Your task to perform on an android device: install app "Adobe Acrobat Reader" Image 0: 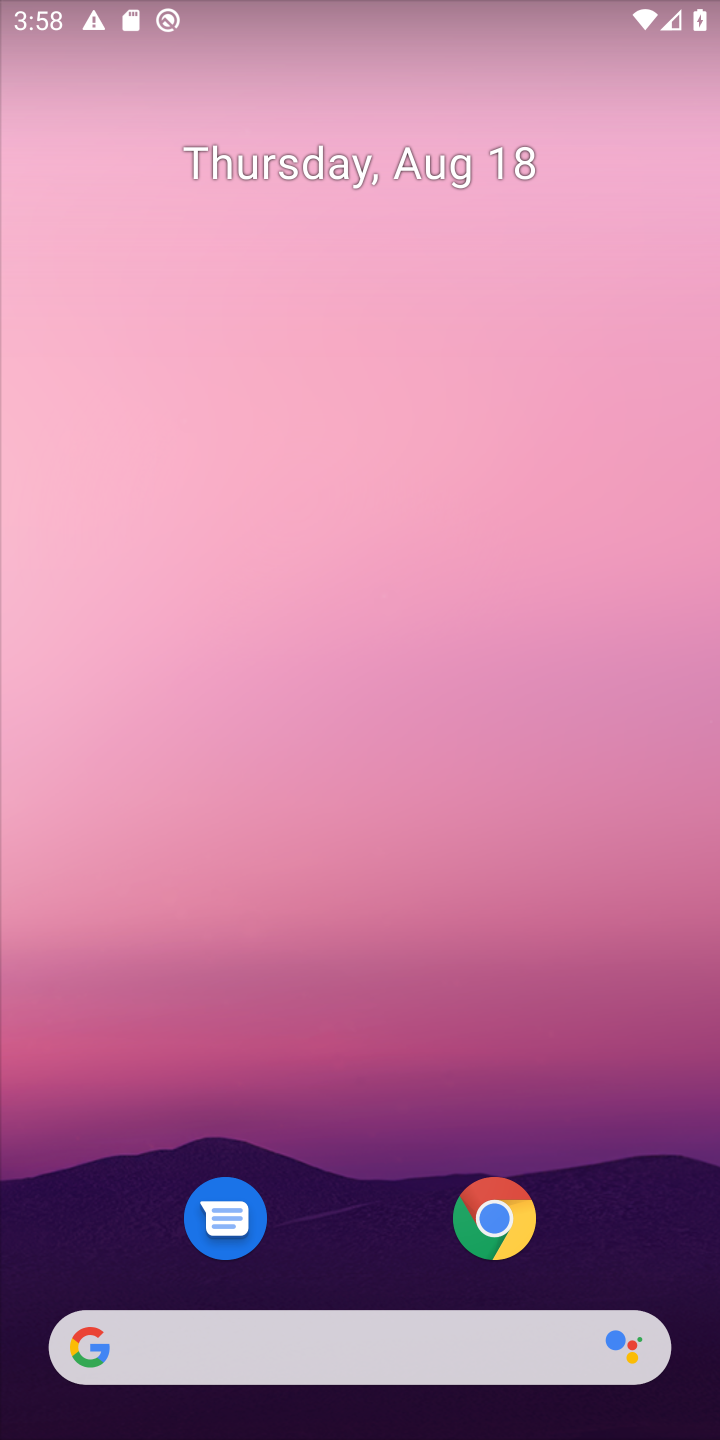
Step 0: drag from (370, 1165) to (321, 188)
Your task to perform on an android device: install app "Adobe Acrobat Reader" Image 1: 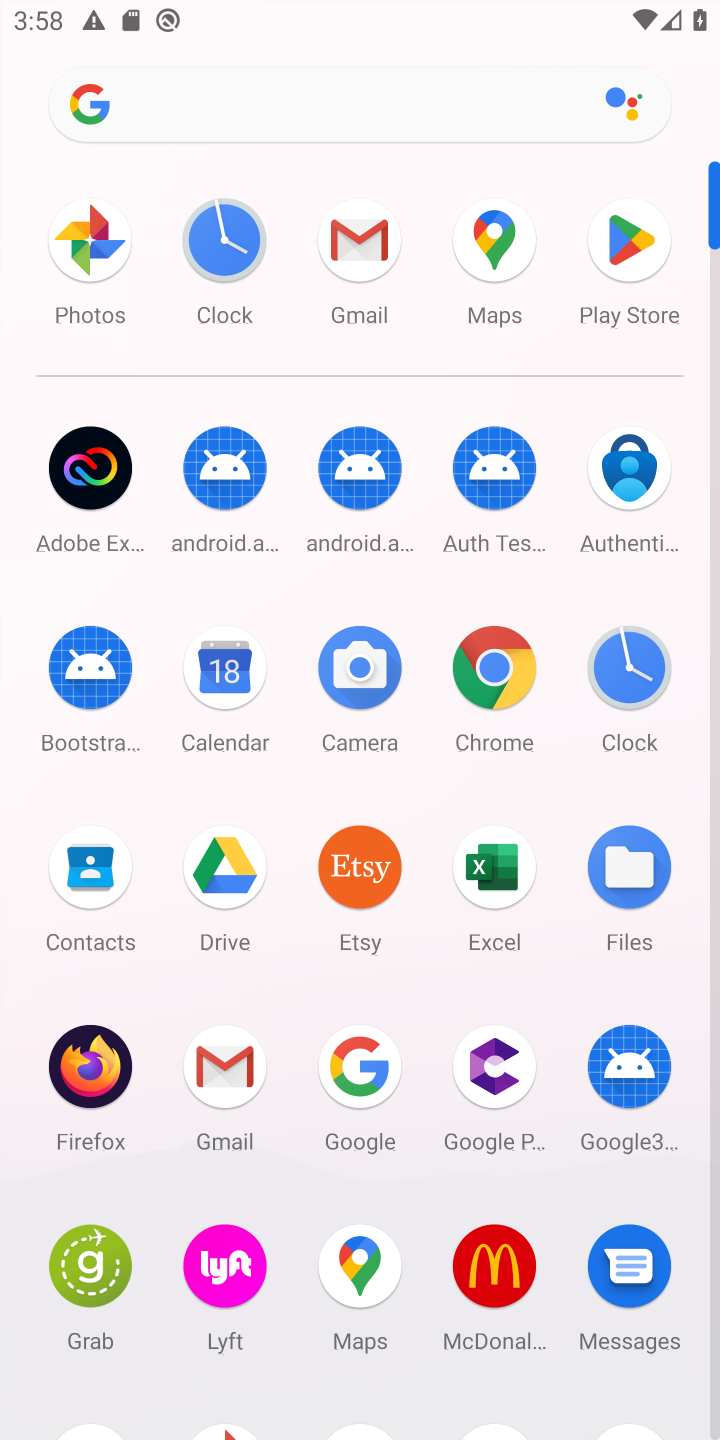
Step 1: click (633, 218)
Your task to perform on an android device: install app "Adobe Acrobat Reader" Image 2: 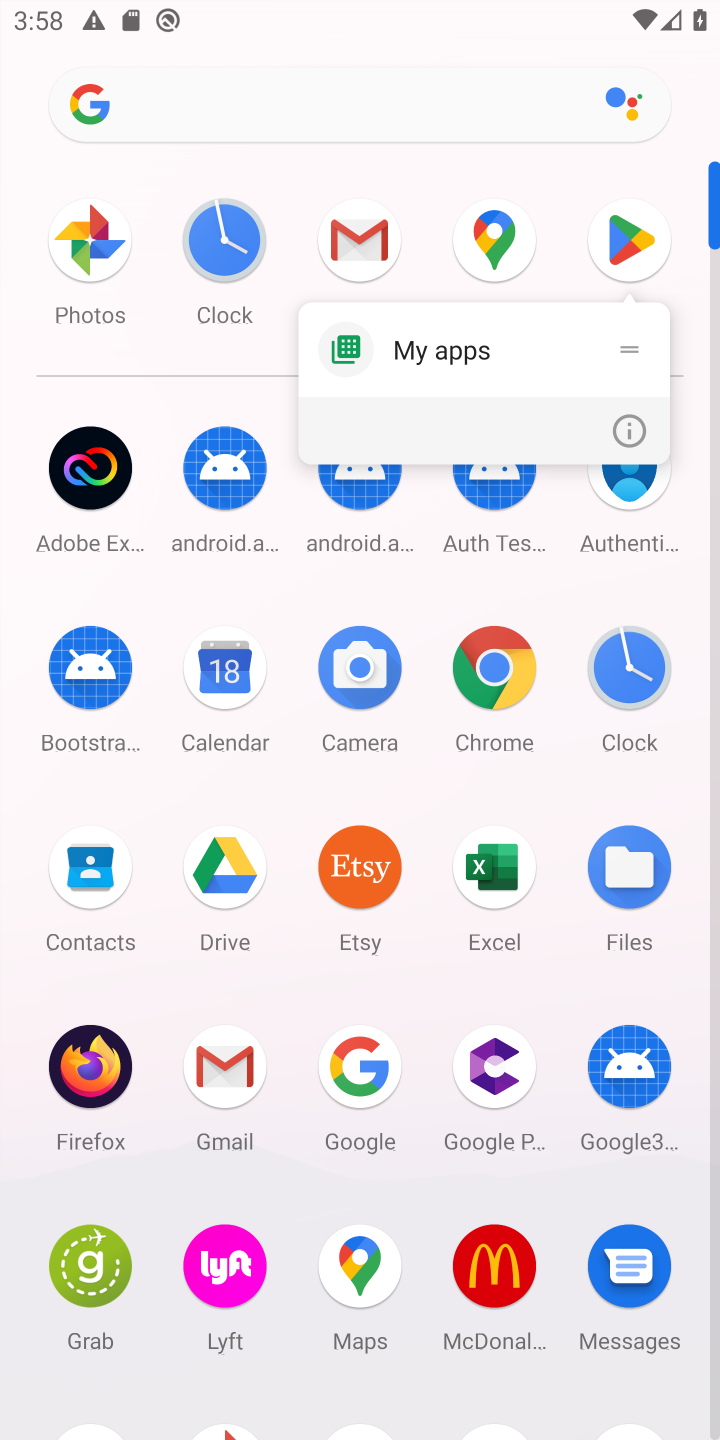
Step 2: click (625, 232)
Your task to perform on an android device: install app "Adobe Acrobat Reader" Image 3: 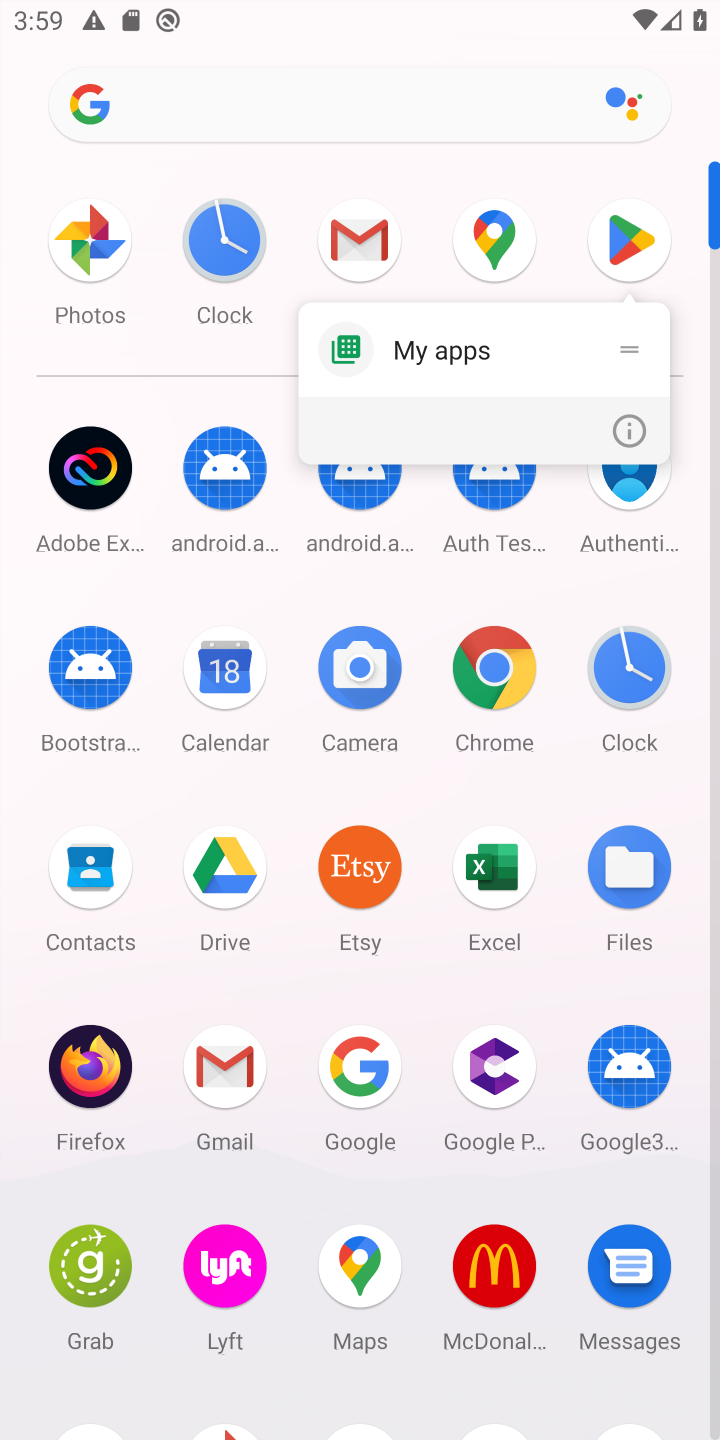
Step 3: click (627, 229)
Your task to perform on an android device: install app "Adobe Acrobat Reader" Image 4: 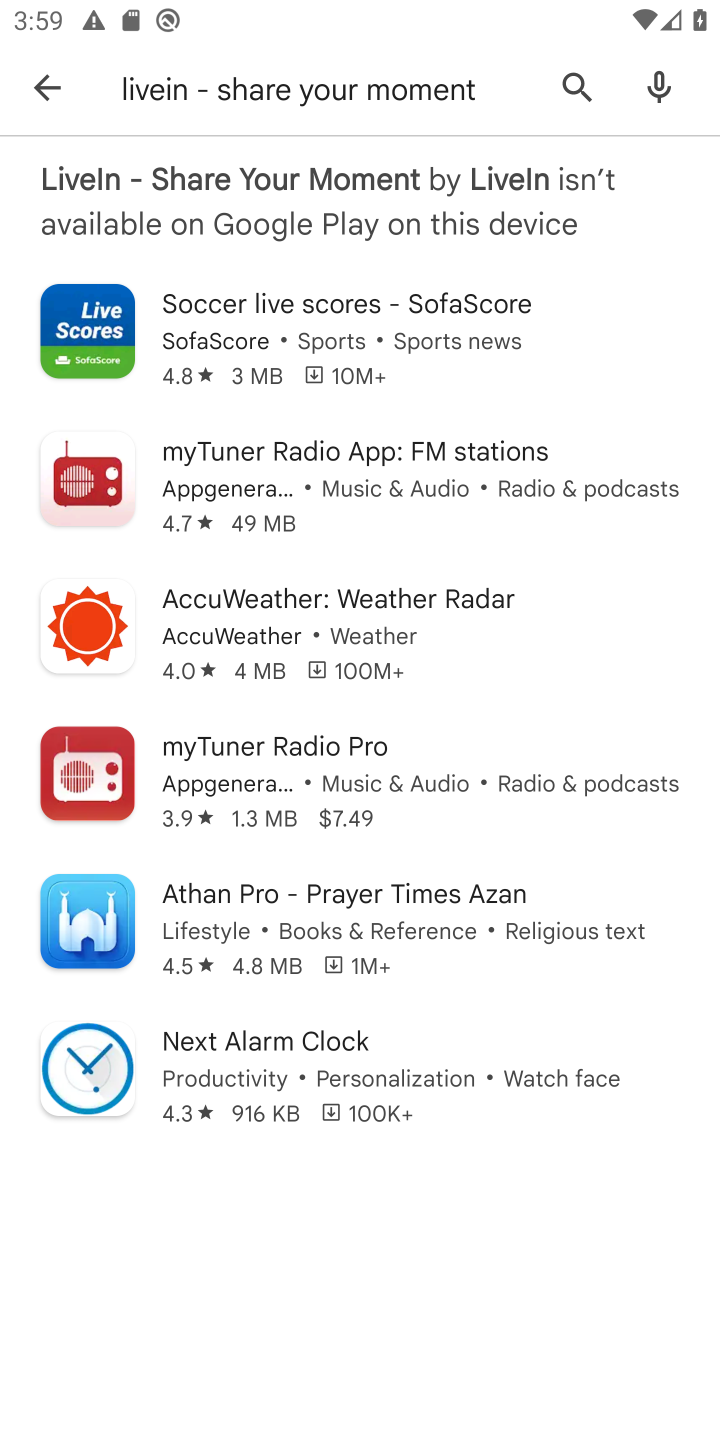
Step 4: click (566, 84)
Your task to perform on an android device: install app "Adobe Acrobat Reader" Image 5: 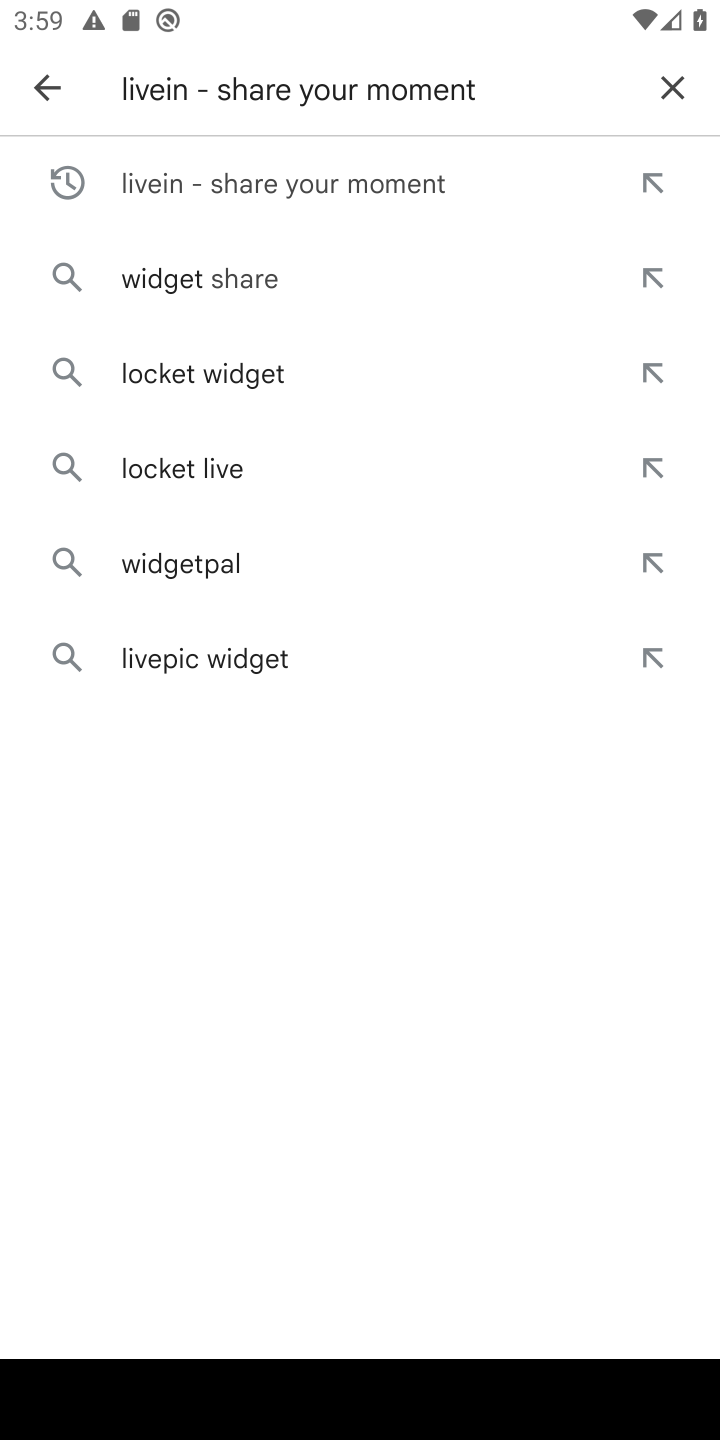
Step 5: click (666, 91)
Your task to perform on an android device: install app "Adobe Acrobat Reader" Image 6: 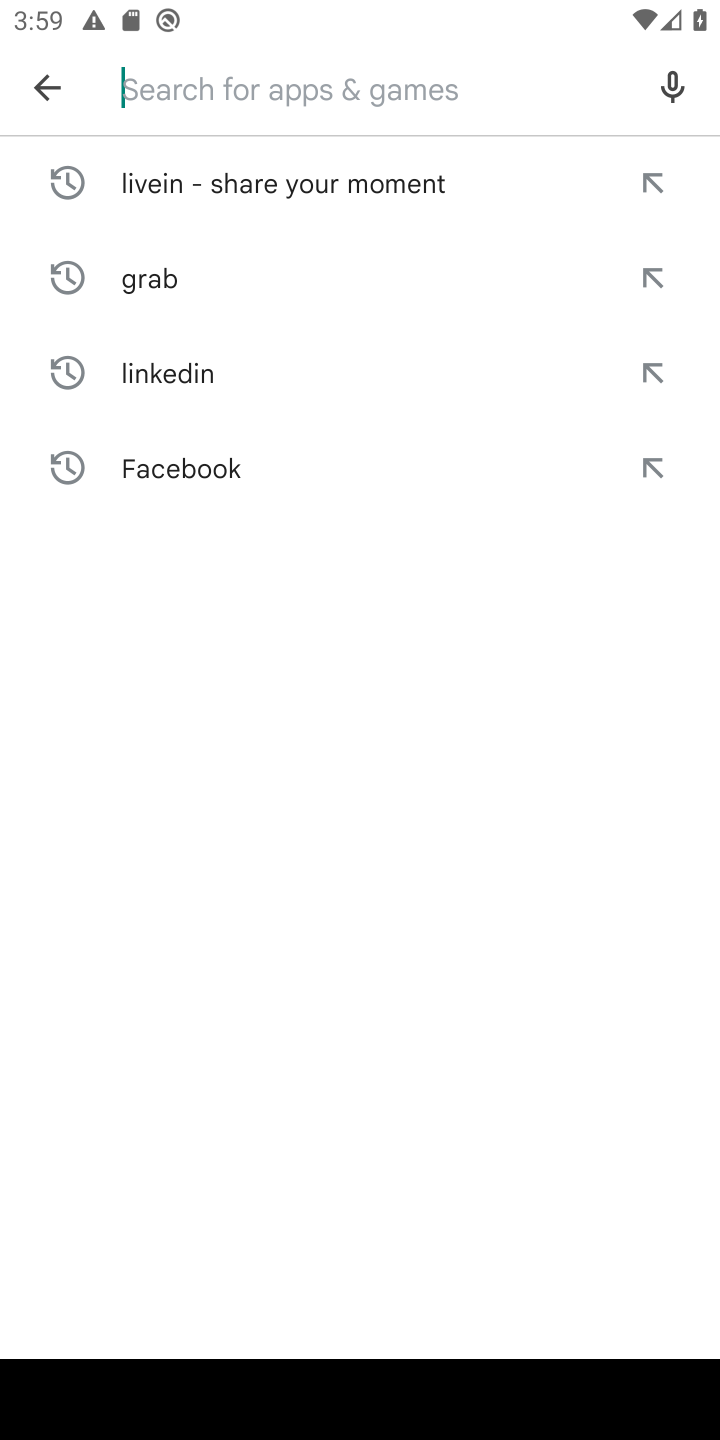
Step 6: type "Adobe Acrobat Reader"
Your task to perform on an android device: install app "Adobe Acrobat Reader" Image 7: 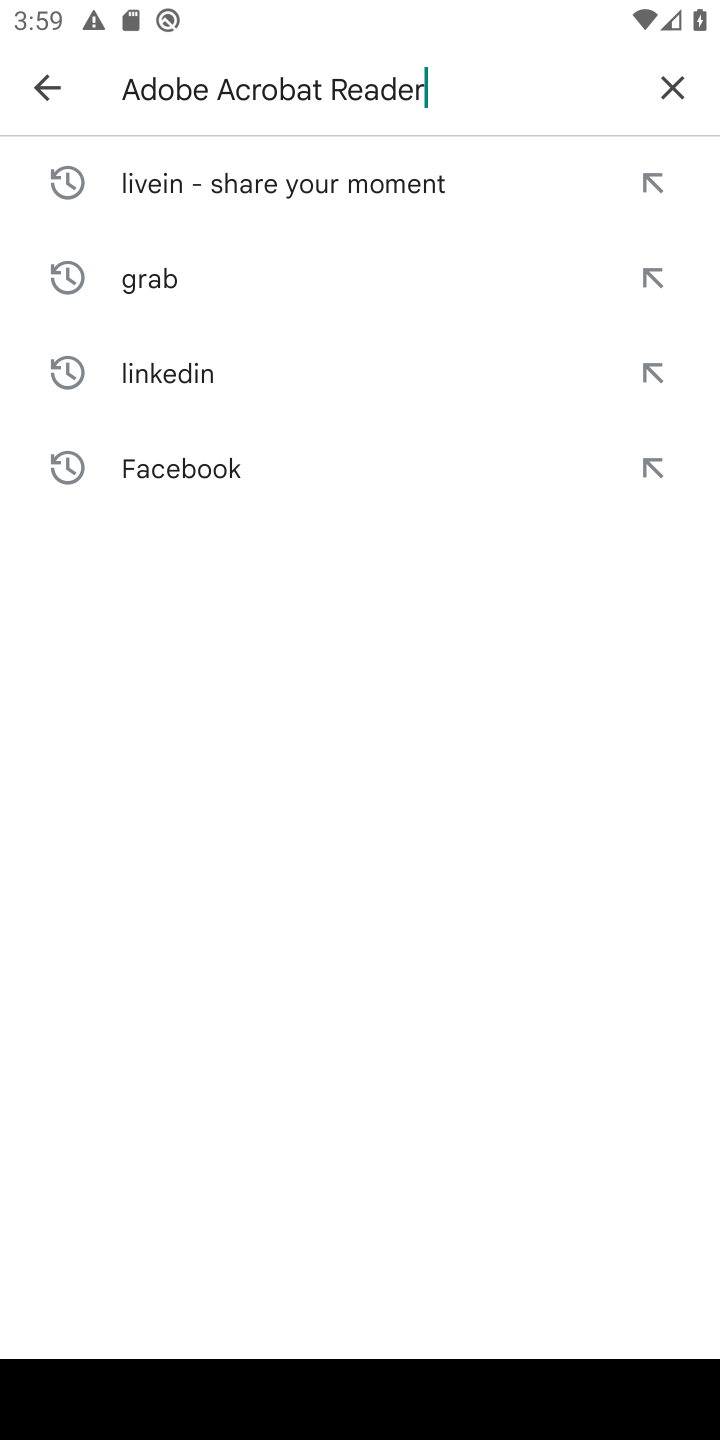
Step 7: type ""
Your task to perform on an android device: install app "Adobe Acrobat Reader" Image 8: 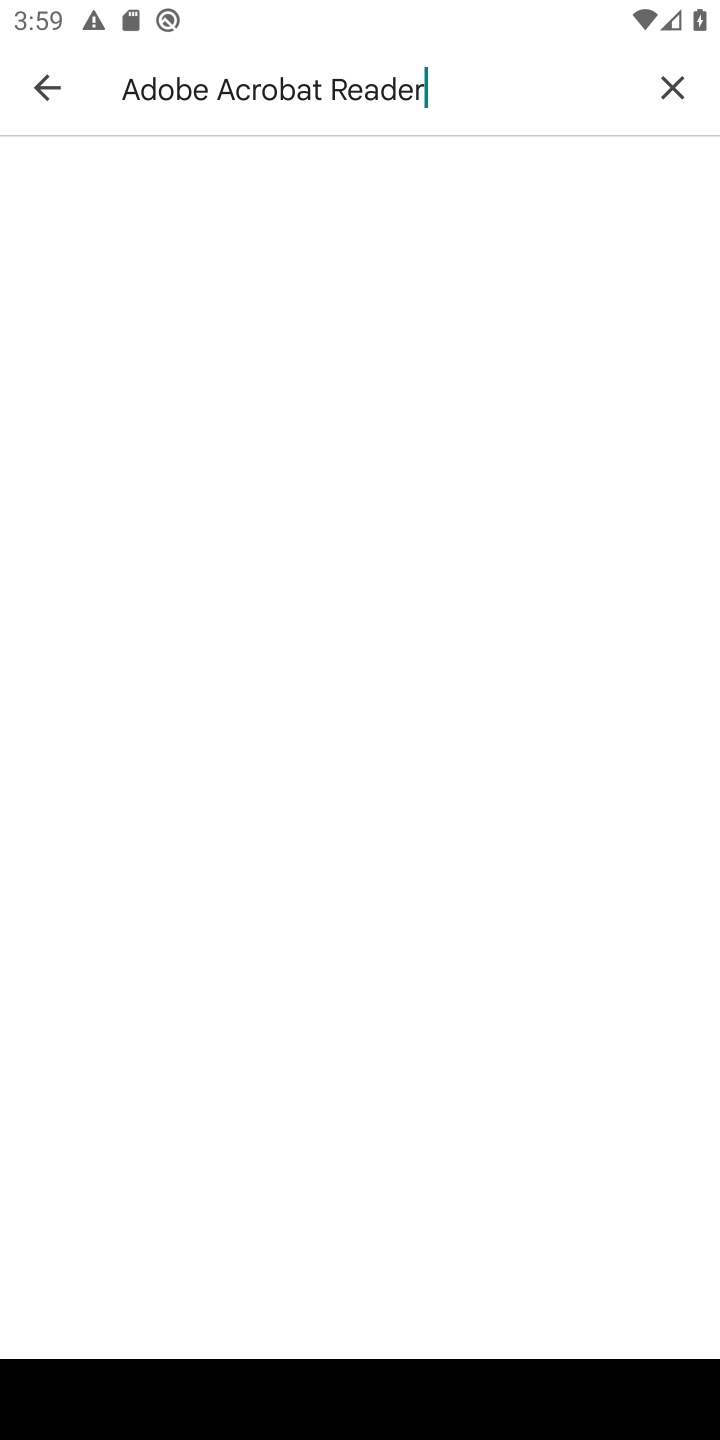
Step 8: task complete